Your task to perform on an android device: Open eBay Image 0: 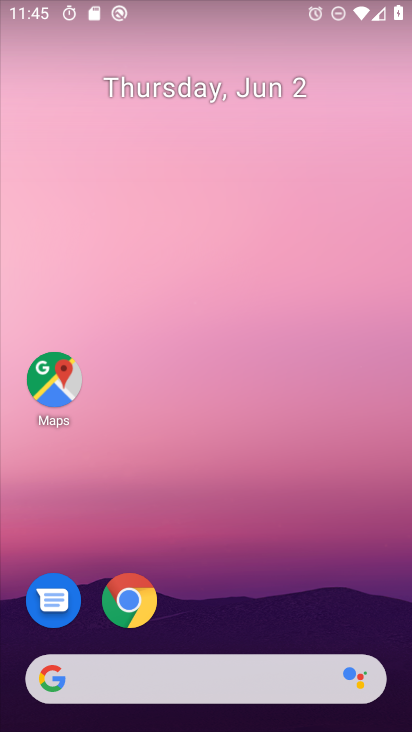
Step 0: drag from (230, 532) to (233, 113)
Your task to perform on an android device: Open eBay Image 1: 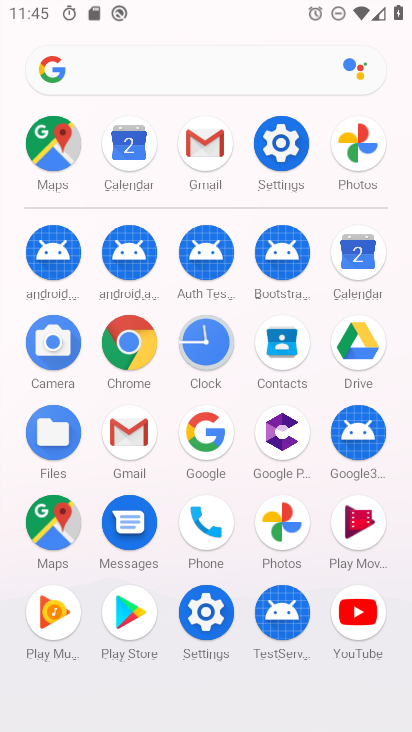
Step 1: click (210, 437)
Your task to perform on an android device: Open eBay Image 2: 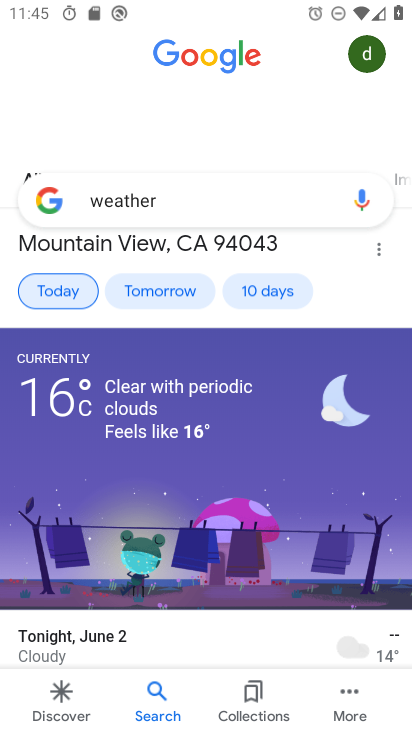
Step 2: click (201, 195)
Your task to perform on an android device: Open eBay Image 3: 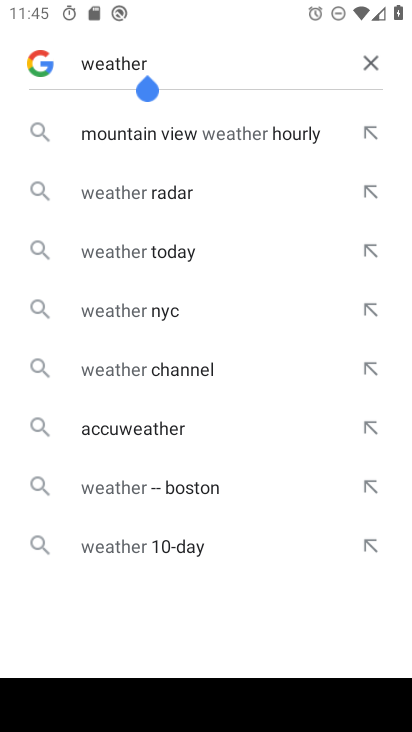
Step 3: click (358, 60)
Your task to perform on an android device: Open eBay Image 4: 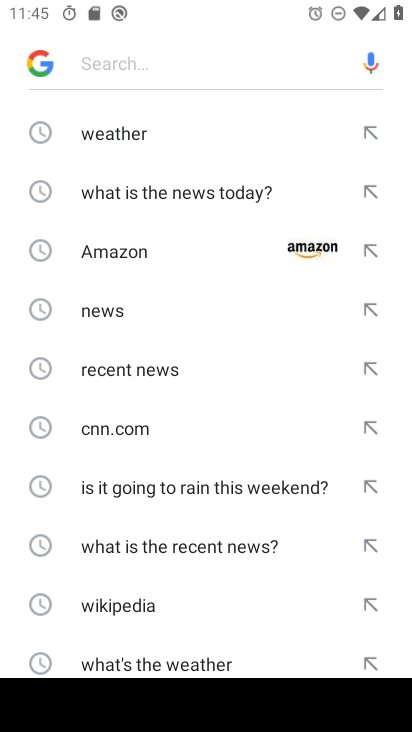
Step 4: drag from (236, 509) to (259, 80)
Your task to perform on an android device: Open eBay Image 5: 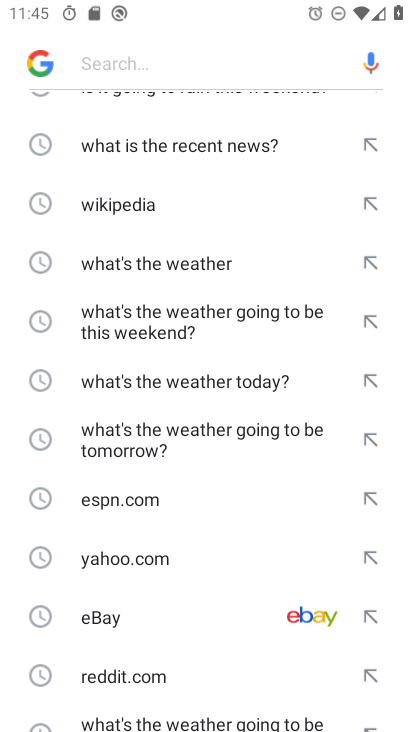
Step 5: click (147, 610)
Your task to perform on an android device: Open eBay Image 6: 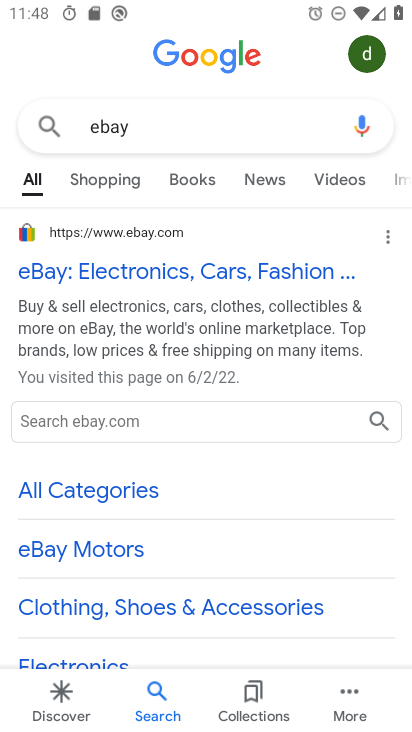
Step 6: task complete